Your task to perform on an android device: How much does a 3 bedroom apartment rent for in Denver? Image 0: 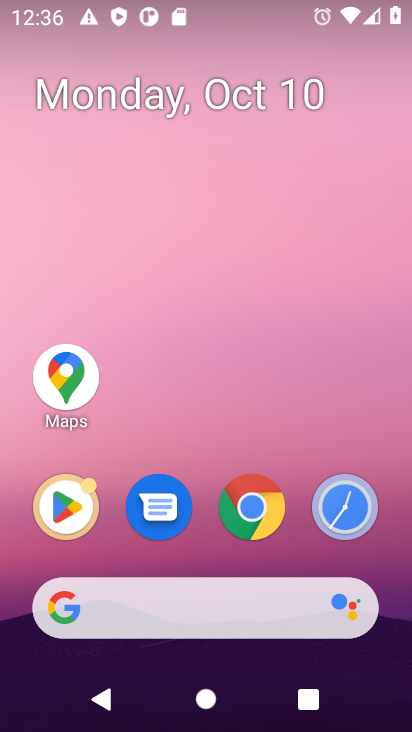
Step 0: press home button
Your task to perform on an android device: How much does a 3 bedroom apartment rent for in Denver? Image 1: 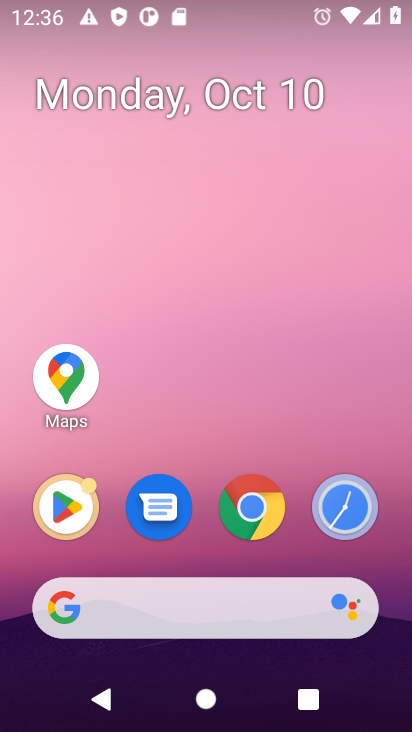
Step 1: click (276, 606)
Your task to perform on an android device: How much does a 3 bedroom apartment rent for in Denver? Image 2: 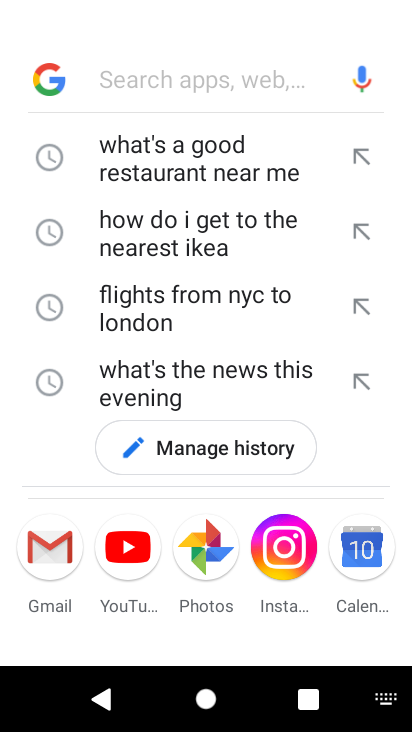
Step 2: type "3 bedroom apartment rent for in Denver"
Your task to perform on an android device: How much does a 3 bedroom apartment rent for in Denver? Image 3: 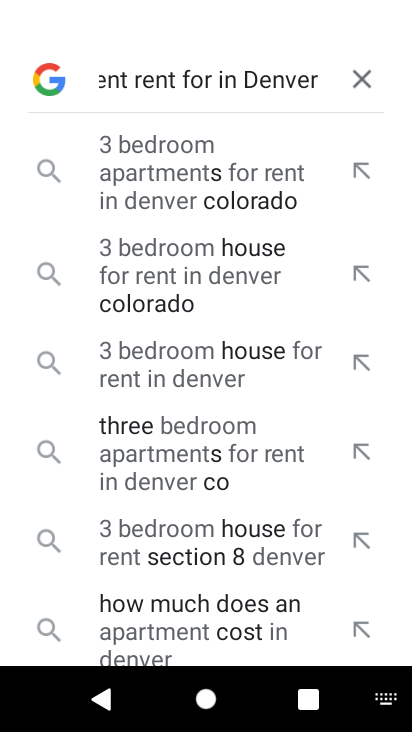
Step 3: press enter
Your task to perform on an android device: How much does a 3 bedroom apartment rent for in Denver? Image 4: 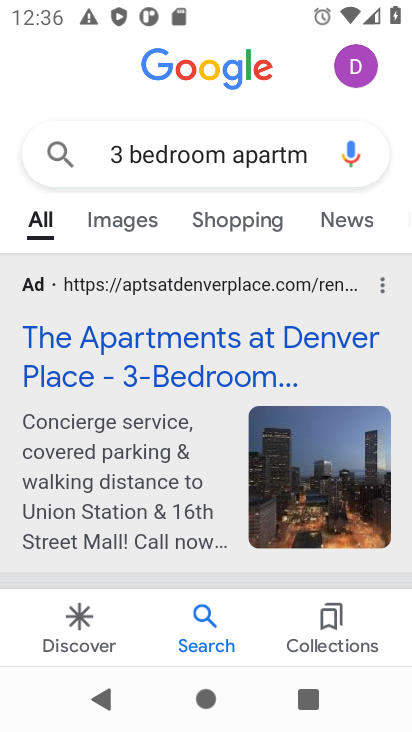
Step 4: drag from (204, 526) to (222, 265)
Your task to perform on an android device: How much does a 3 bedroom apartment rent for in Denver? Image 5: 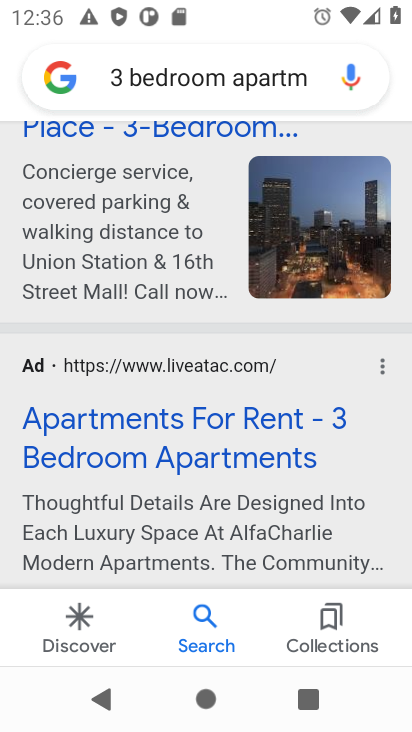
Step 5: click (221, 444)
Your task to perform on an android device: How much does a 3 bedroom apartment rent for in Denver? Image 6: 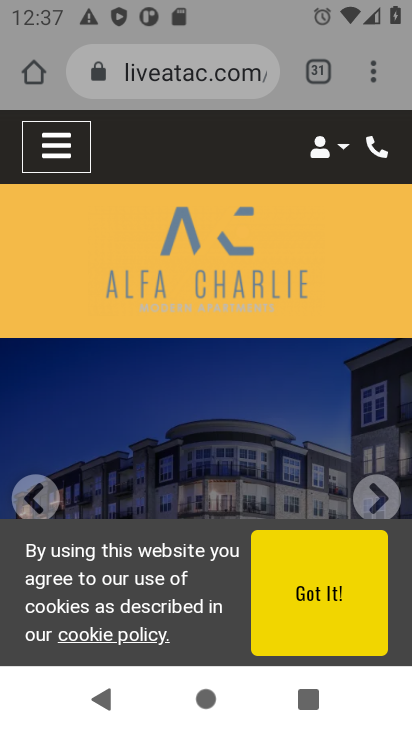
Step 6: task complete